Your task to perform on an android device: search for starred emails in the gmail app Image 0: 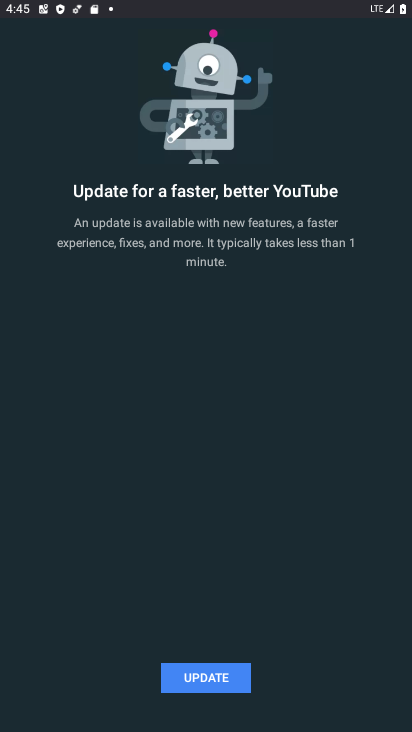
Step 0: press home button
Your task to perform on an android device: search for starred emails in the gmail app Image 1: 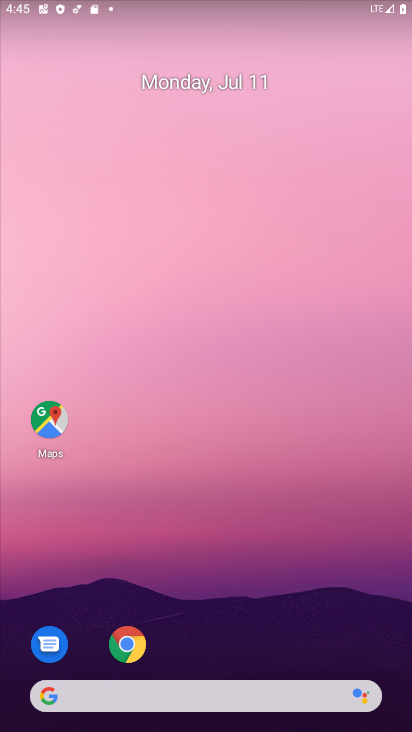
Step 1: drag from (255, 649) to (246, 217)
Your task to perform on an android device: search for starred emails in the gmail app Image 2: 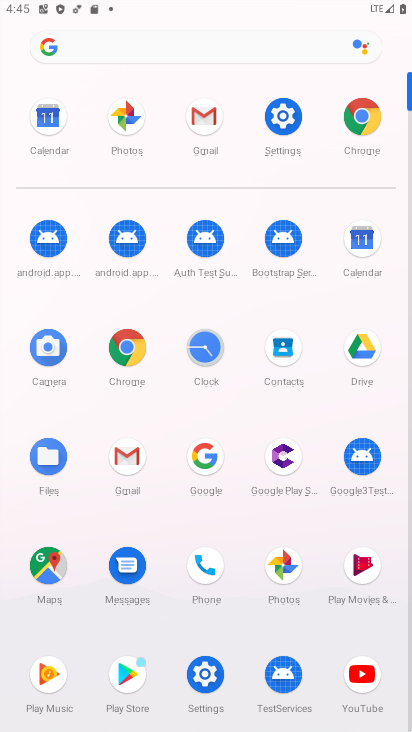
Step 2: click (179, 124)
Your task to perform on an android device: search for starred emails in the gmail app Image 3: 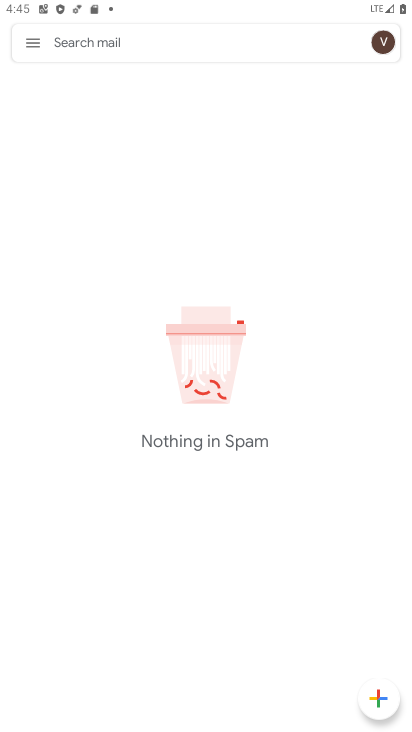
Step 3: click (33, 37)
Your task to perform on an android device: search for starred emails in the gmail app Image 4: 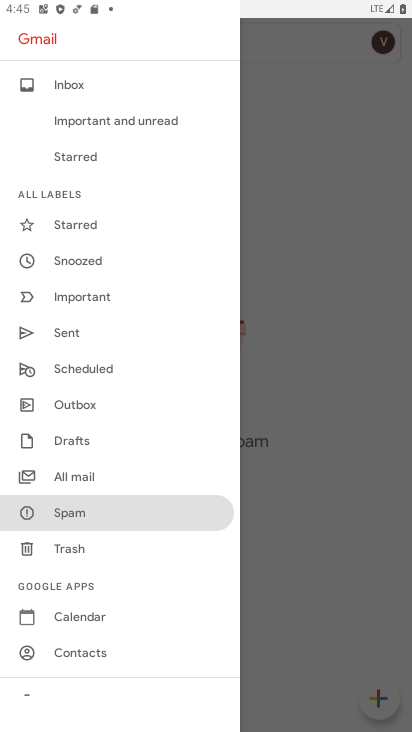
Step 4: click (86, 157)
Your task to perform on an android device: search for starred emails in the gmail app Image 5: 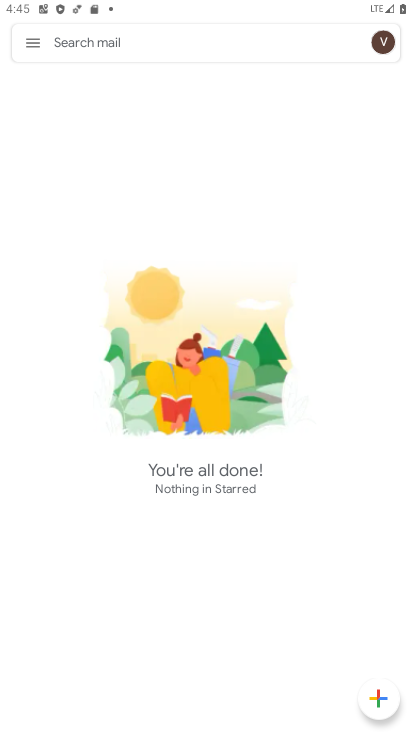
Step 5: task complete